Your task to perform on an android device: read, delete, or share a saved page in the chrome app Image 0: 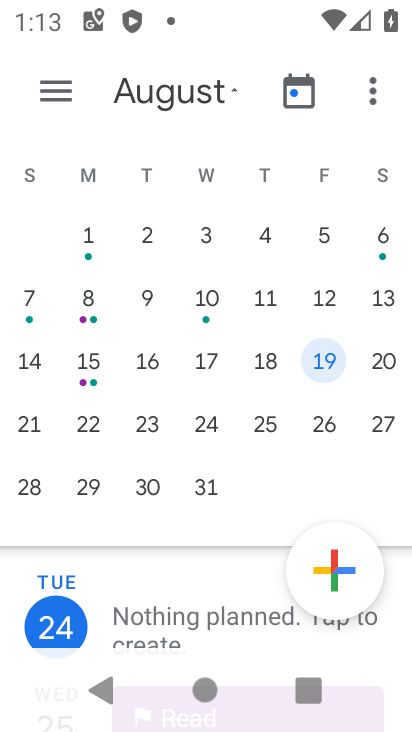
Step 0: press home button
Your task to perform on an android device: read, delete, or share a saved page in the chrome app Image 1: 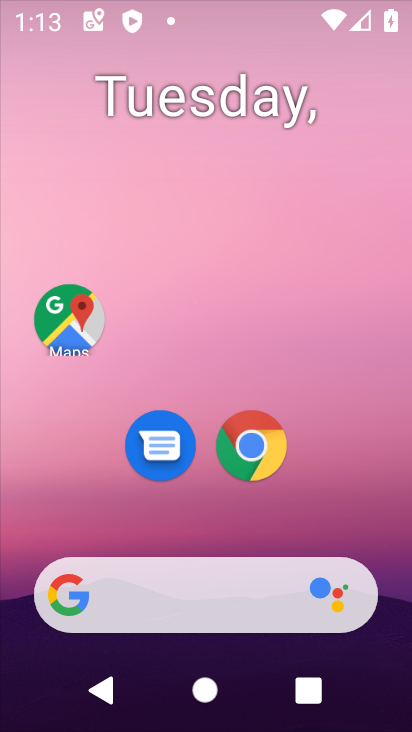
Step 1: drag from (342, 479) to (296, 14)
Your task to perform on an android device: read, delete, or share a saved page in the chrome app Image 2: 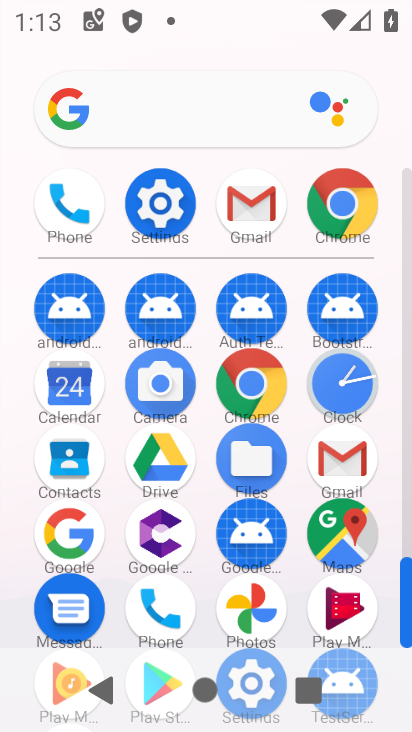
Step 2: click (354, 187)
Your task to perform on an android device: read, delete, or share a saved page in the chrome app Image 3: 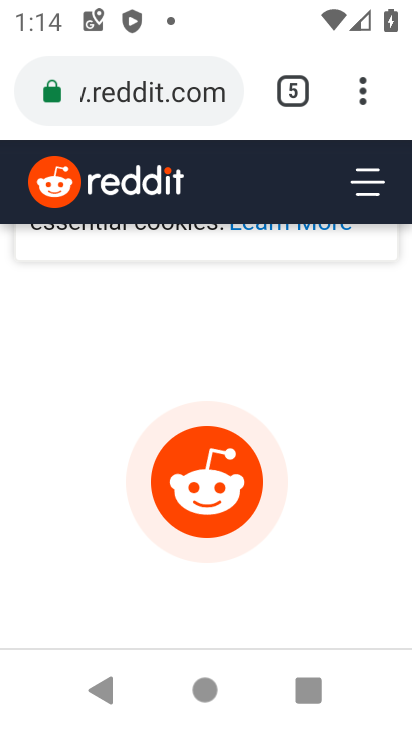
Step 3: drag from (359, 108) to (112, 523)
Your task to perform on an android device: read, delete, or share a saved page in the chrome app Image 4: 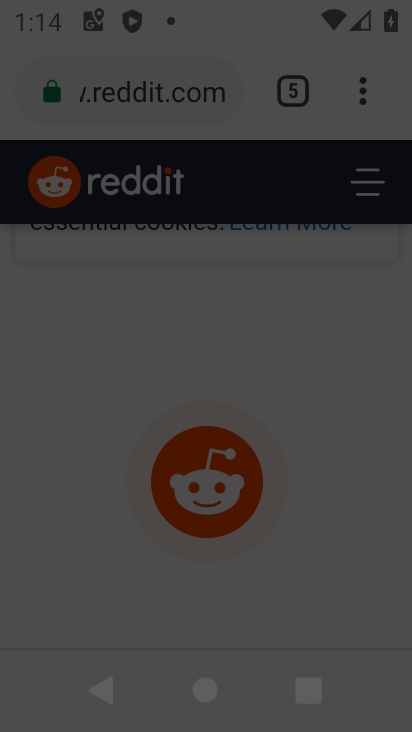
Step 4: click (381, 82)
Your task to perform on an android device: read, delete, or share a saved page in the chrome app Image 5: 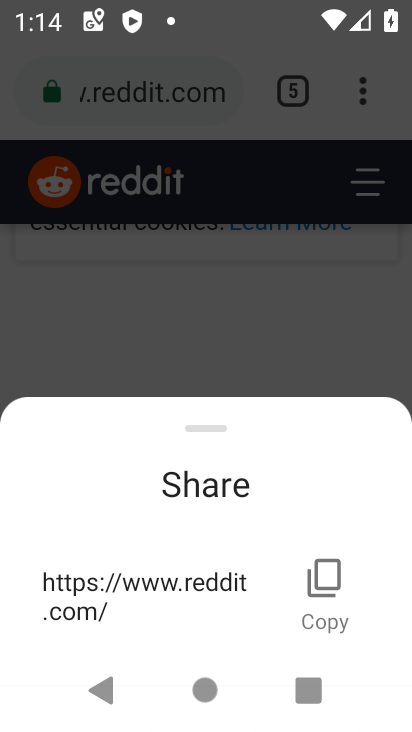
Step 5: click (362, 101)
Your task to perform on an android device: read, delete, or share a saved page in the chrome app Image 6: 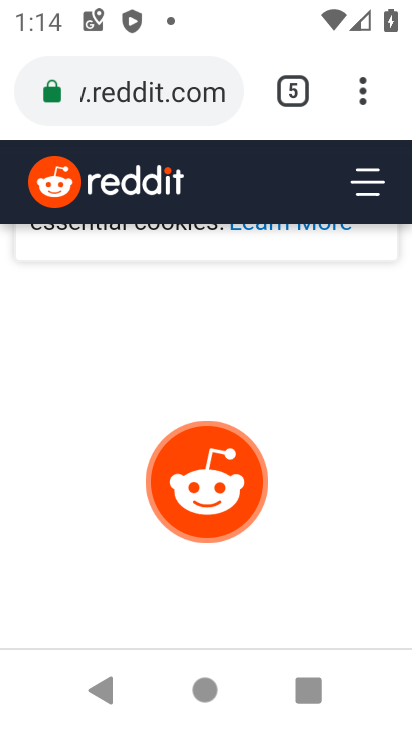
Step 6: task complete